Your task to perform on an android device: Open accessibility settings Image 0: 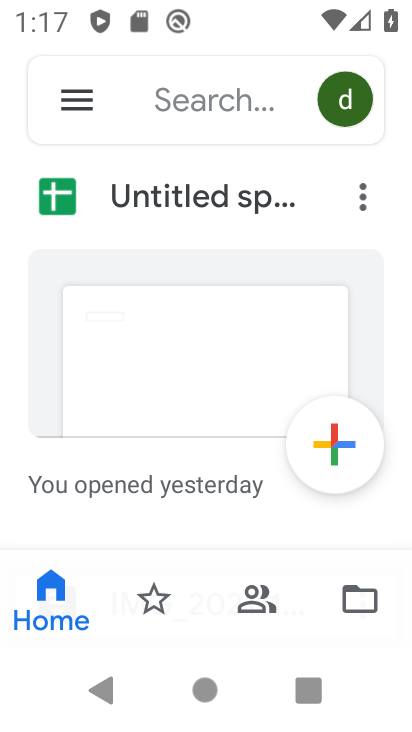
Step 0: press home button
Your task to perform on an android device: Open accessibility settings Image 1: 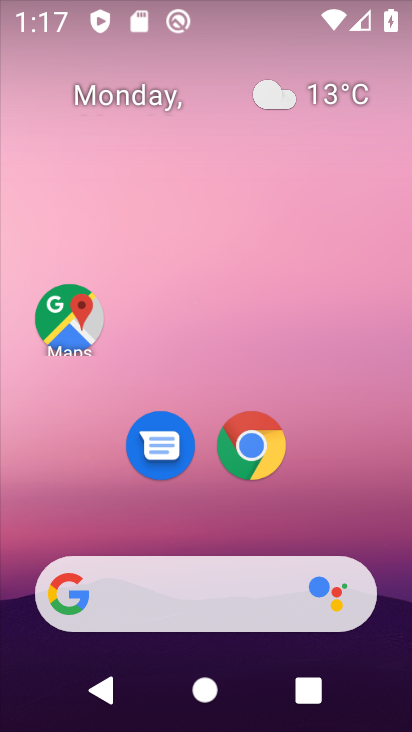
Step 1: drag from (321, 450) to (307, 5)
Your task to perform on an android device: Open accessibility settings Image 2: 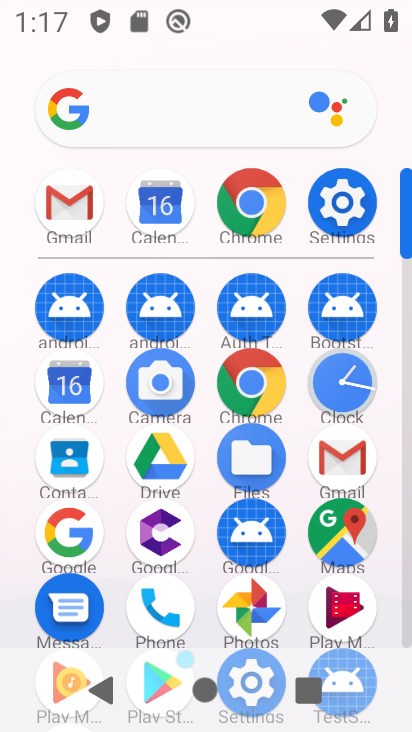
Step 2: click (332, 231)
Your task to perform on an android device: Open accessibility settings Image 3: 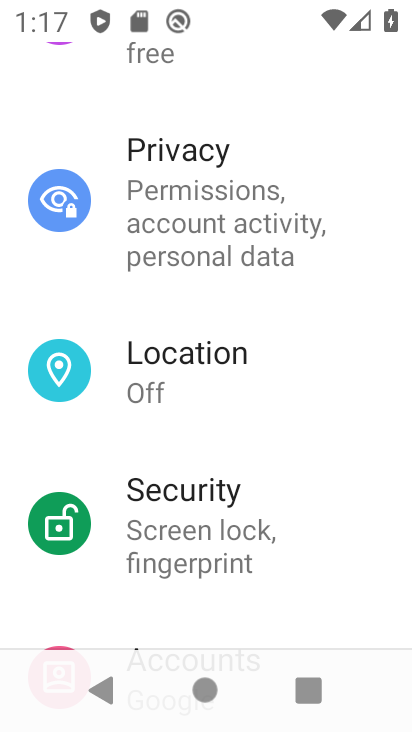
Step 3: drag from (259, 545) to (266, 176)
Your task to perform on an android device: Open accessibility settings Image 4: 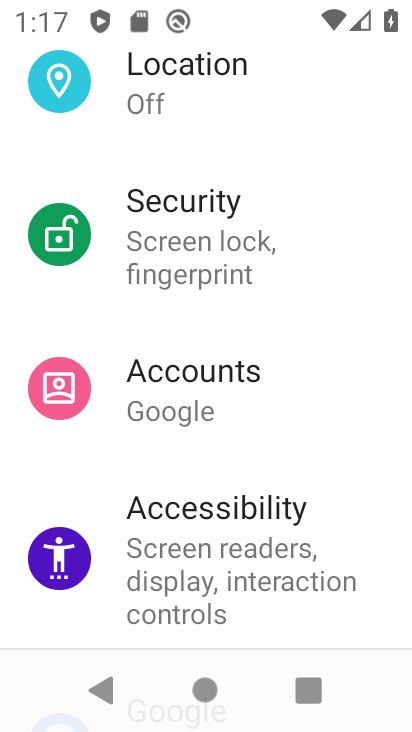
Step 4: click (168, 576)
Your task to perform on an android device: Open accessibility settings Image 5: 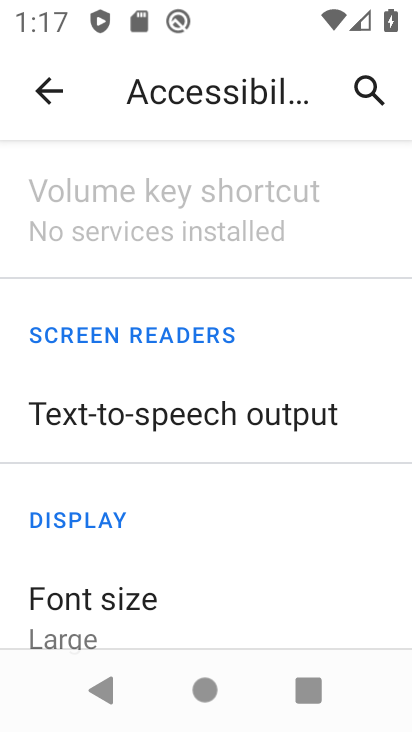
Step 5: task complete